Your task to perform on an android device: open chrome and create a bookmark for the current page Image 0: 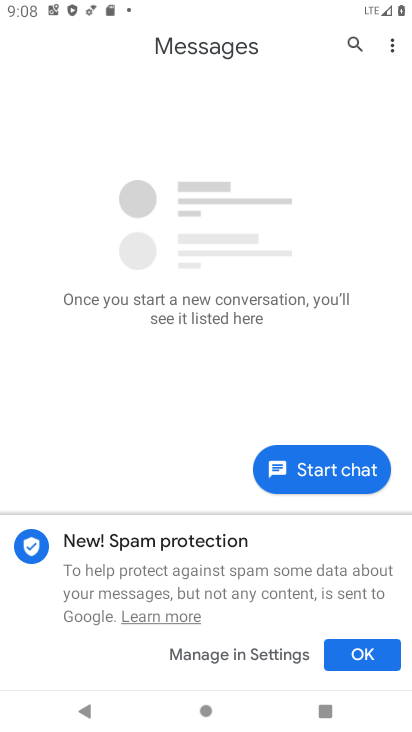
Step 0: press home button
Your task to perform on an android device: open chrome and create a bookmark for the current page Image 1: 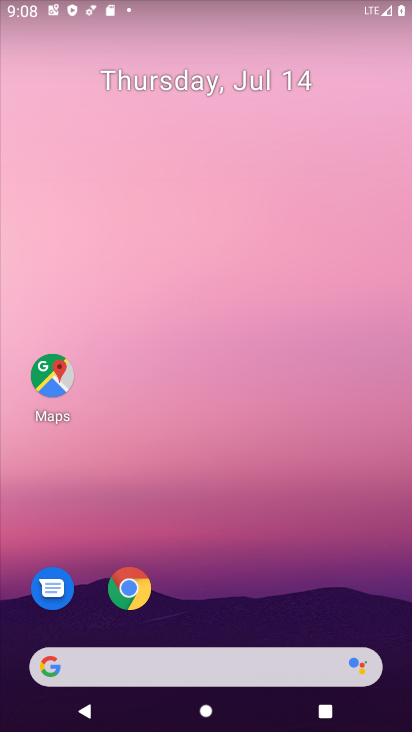
Step 1: drag from (338, 619) to (264, 4)
Your task to perform on an android device: open chrome and create a bookmark for the current page Image 2: 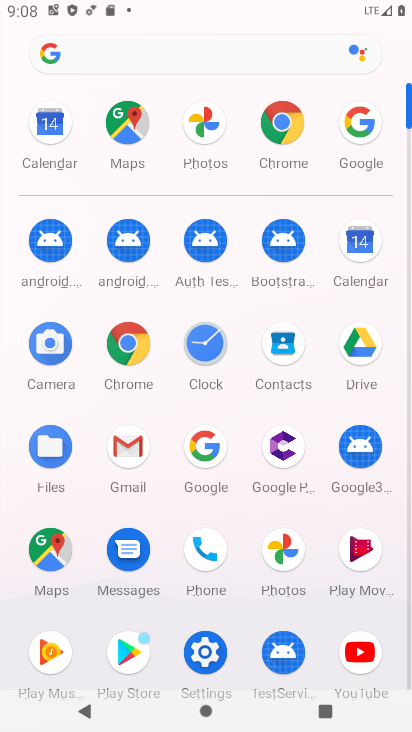
Step 2: click (277, 126)
Your task to perform on an android device: open chrome and create a bookmark for the current page Image 3: 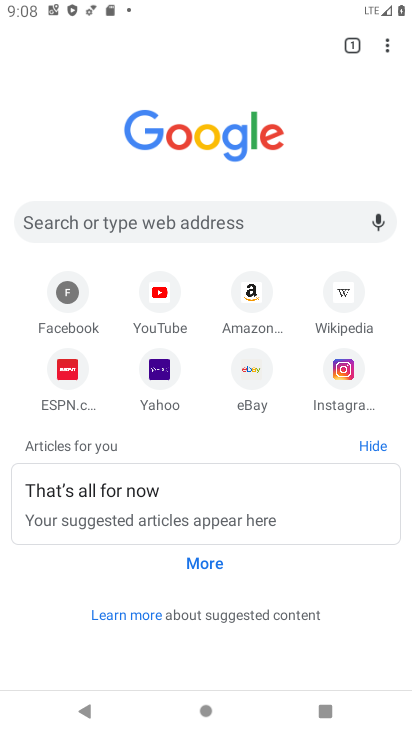
Step 3: click (387, 42)
Your task to perform on an android device: open chrome and create a bookmark for the current page Image 4: 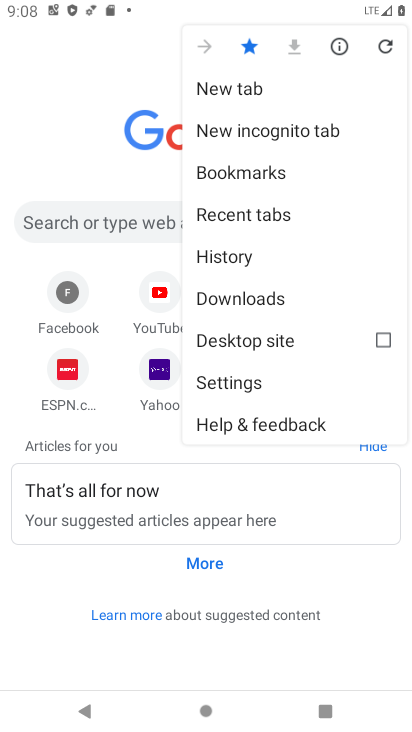
Step 4: task complete